Your task to perform on an android device: Open ESPN.com Image 0: 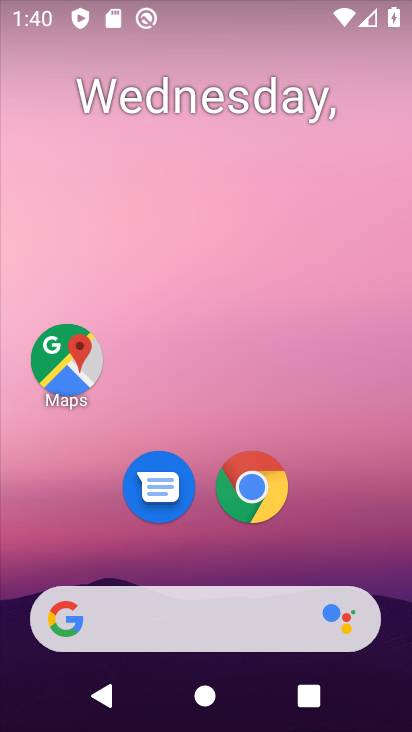
Step 0: click (257, 488)
Your task to perform on an android device: Open ESPN.com Image 1: 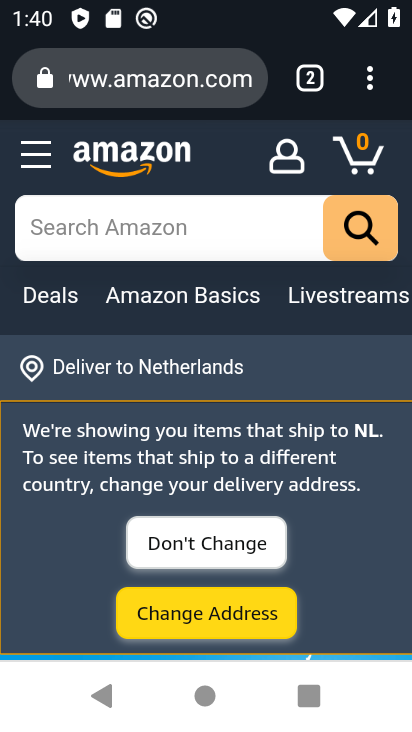
Step 1: click (370, 82)
Your task to perform on an android device: Open ESPN.com Image 2: 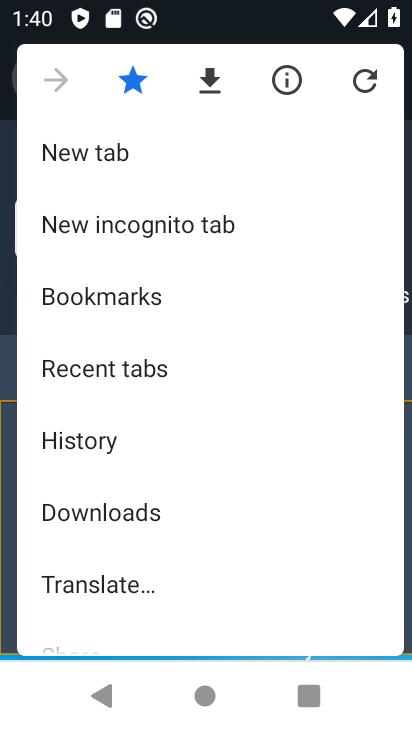
Step 2: click (94, 149)
Your task to perform on an android device: Open ESPN.com Image 3: 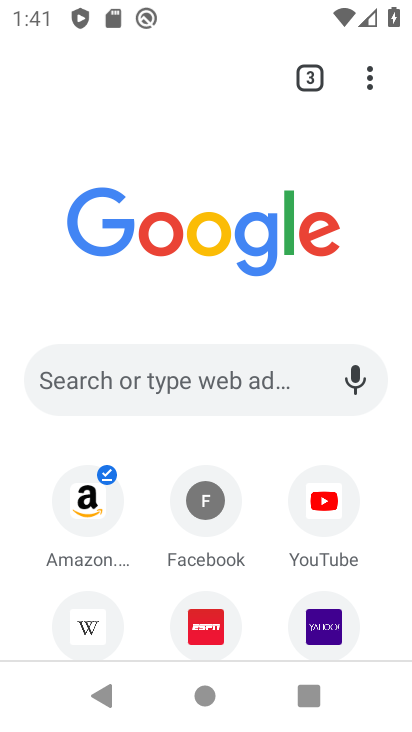
Step 3: drag from (146, 590) to (137, 423)
Your task to perform on an android device: Open ESPN.com Image 4: 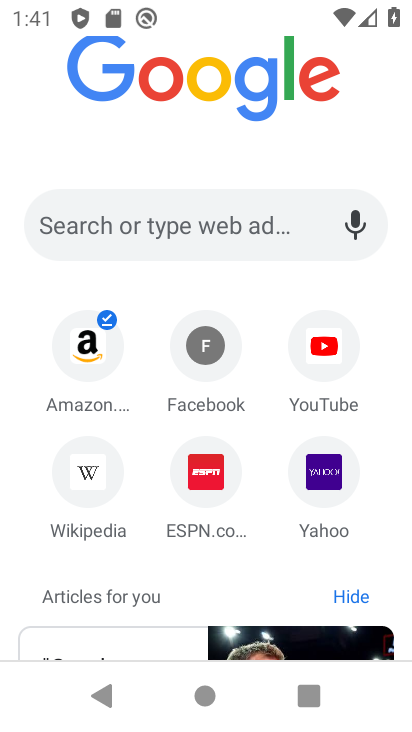
Step 4: click (198, 488)
Your task to perform on an android device: Open ESPN.com Image 5: 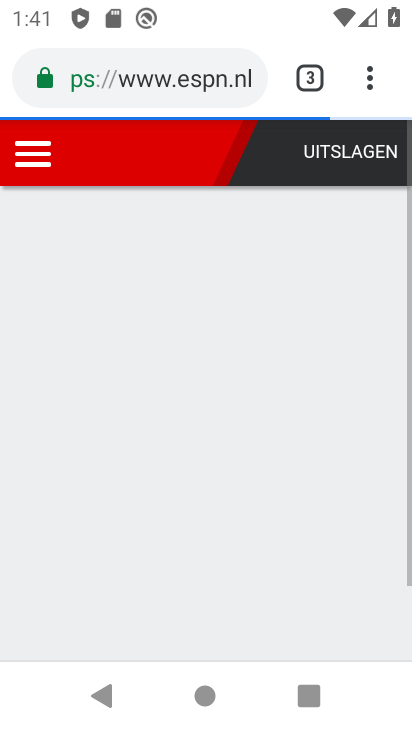
Step 5: task complete